Your task to perform on an android device: allow cookies in the chrome app Image 0: 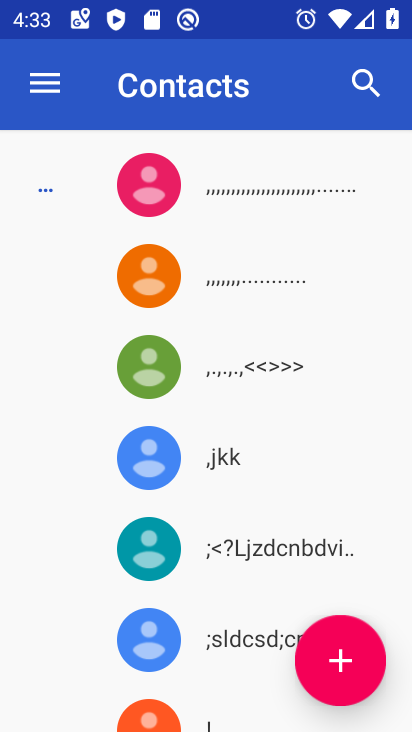
Step 0: press home button
Your task to perform on an android device: allow cookies in the chrome app Image 1: 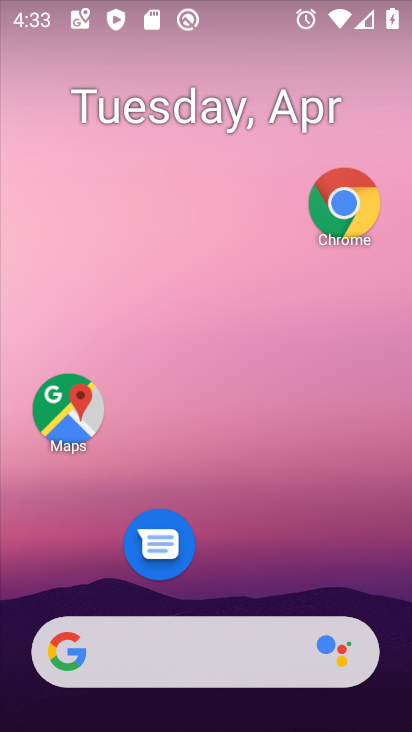
Step 1: click (350, 191)
Your task to perform on an android device: allow cookies in the chrome app Image 2: 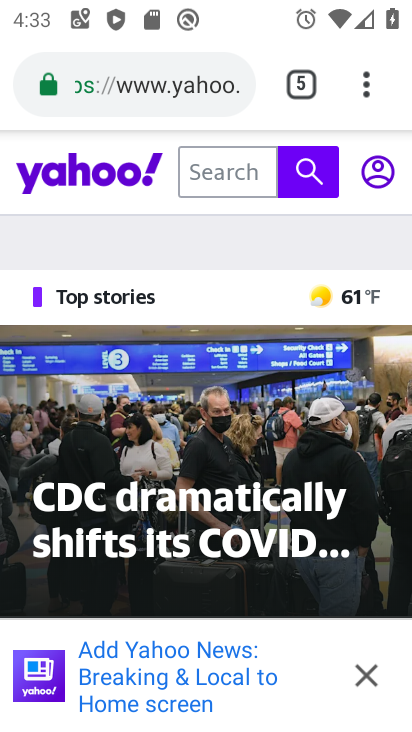
Step 2: click (374, 83)
Your task to perform on an android device: allow cookies in the chrome app Image 3: 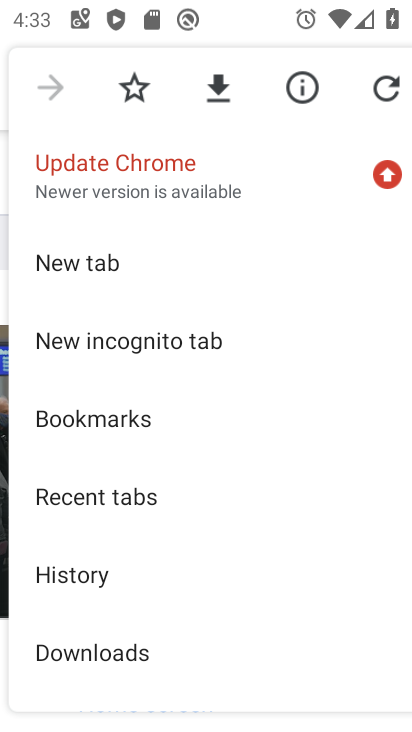
Step 3: drag from (98, 629) to (219, 313)
Your task to perform on an android device: allow cookies in the chrome app Image 4: 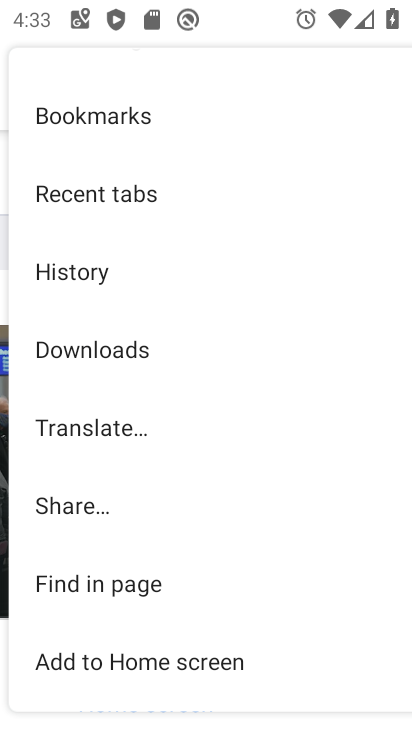
Step 4: drag from (84, 659) to (213, 152)
Your task to perform on an android device: allow cookies in the chrome app Image 5: 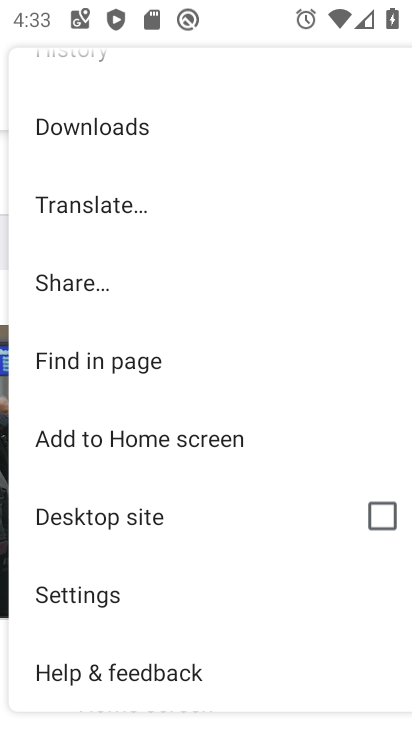
Step 5: click (87, 600)
Your task to perform on an android device: allow cookies in the chrome app Image 6: 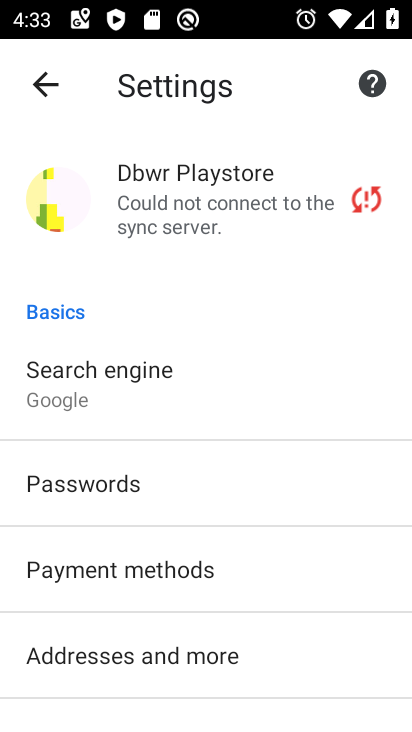
Step 6: drag from (122, 550) to (190, 316)
Your task to perform on an android device: allow cookies in the chrome app Image 7: 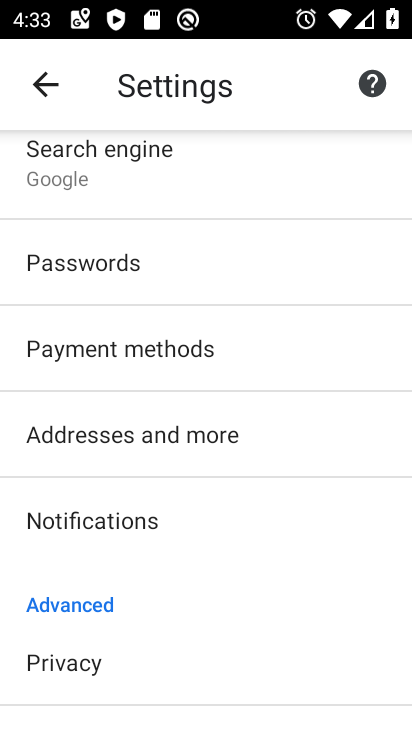
Step 7: drag from (128, 538) to (211, 81)
Your task to perform on an android device: allow cookies in the chrome app Image 8: 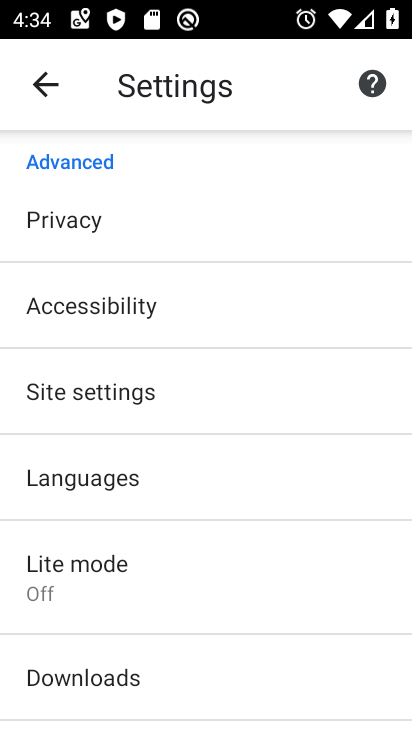
Step 8: click (93, 394)
Your task to perform on an android device: allow cookies in the chrome app Image 9: 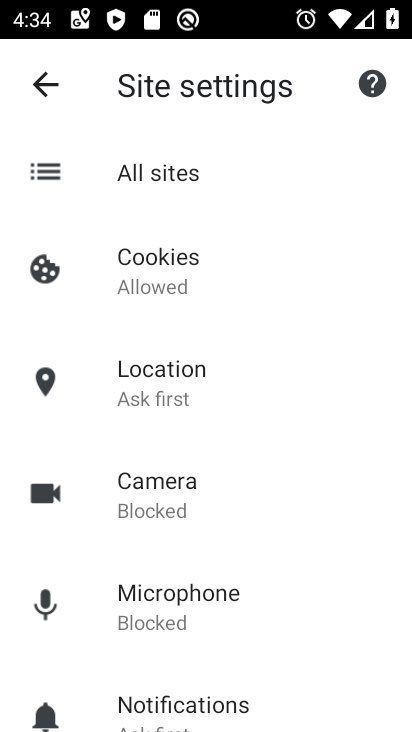
Step 9: click (144, 265)
Your task to perform on an android device: allow cookies in the chrome app Image 10: 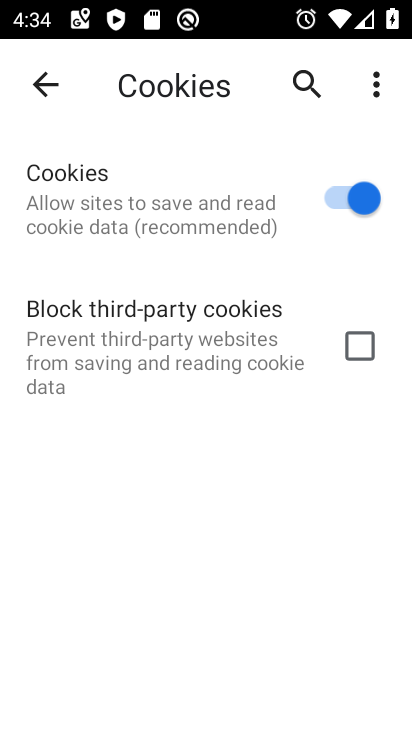
Step 10: task complete